Your task to perform on an android device: toggle sleep mode Image 0: 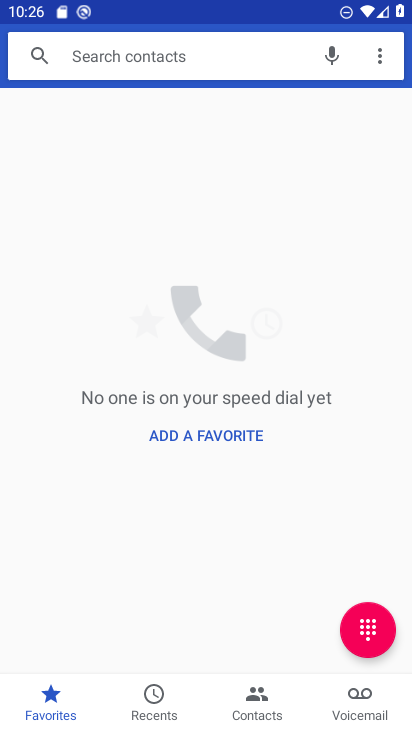
Step 0: press home button
Your task to perform on an android device: toggle sleep mode Image 1: 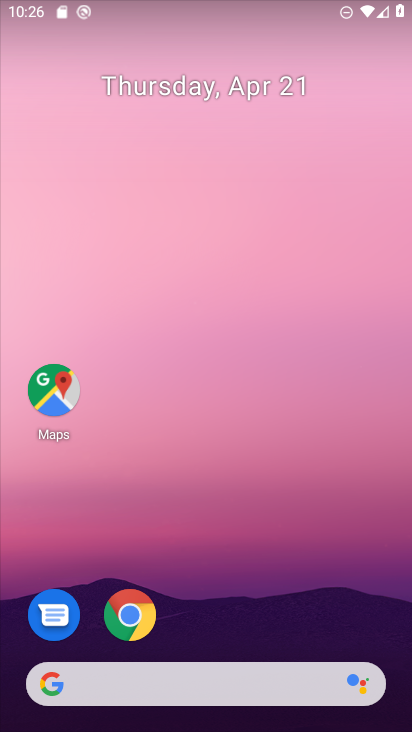
Step 1: drag from (214, 714) to (215, 231)
Your task to perform on an android device: toggle sleep mode Image 2: 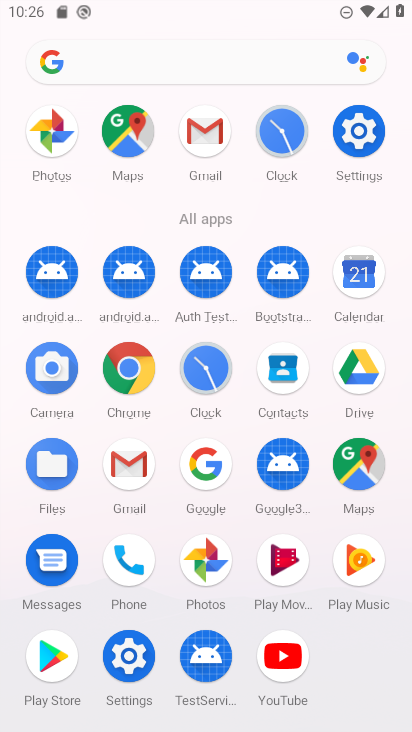
Step 2: click (360, 131)
Your task to perform on an android device: toggle sleep mode Image 3: 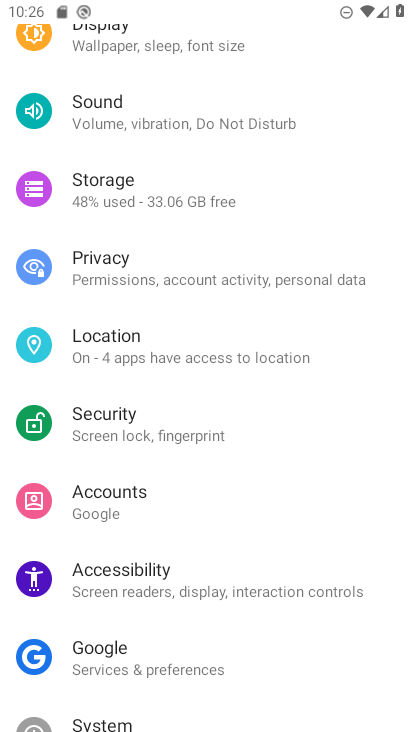
Step 3: drag from (175, 695) to (161, 181)
Your task to perform on an android device: toggle sleep mode Image 4: 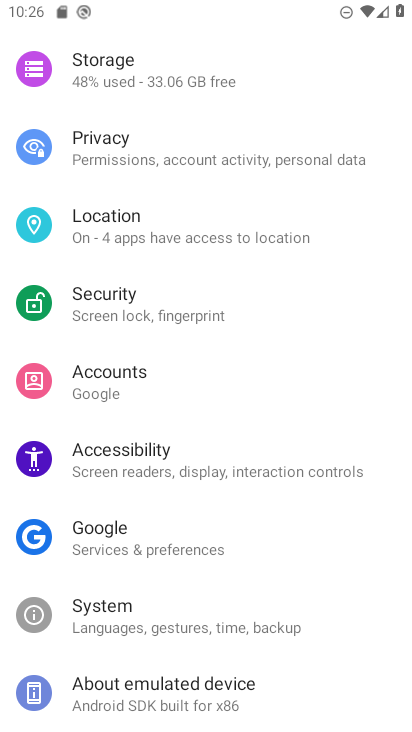
Step 4: drag from (232, 117) to (250, 529)
Your task to perform on an android device: toggle sleep mode Image 5: 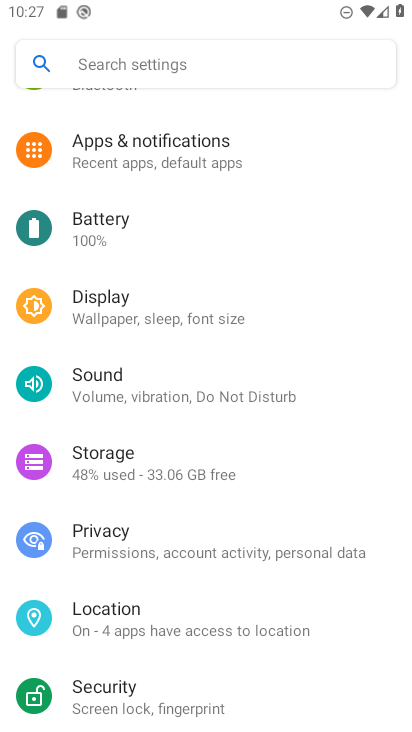
Step 5: click (158, 319)
Your task to perform on an android device: toggle sleep mode Image 6: 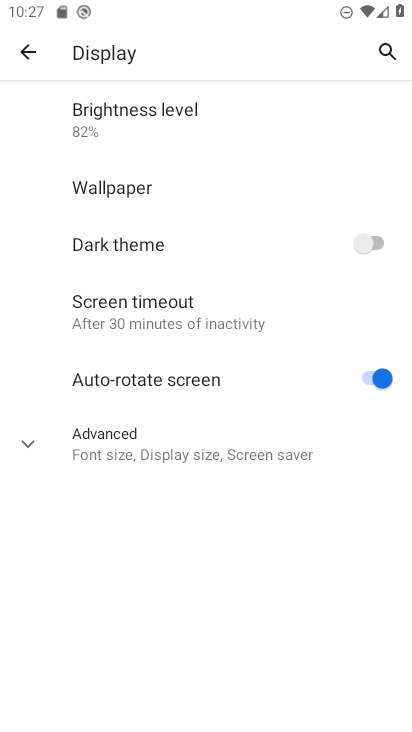
Step 6: task complete